Your task to perform on an android device: Open Google Chrome Image 0: 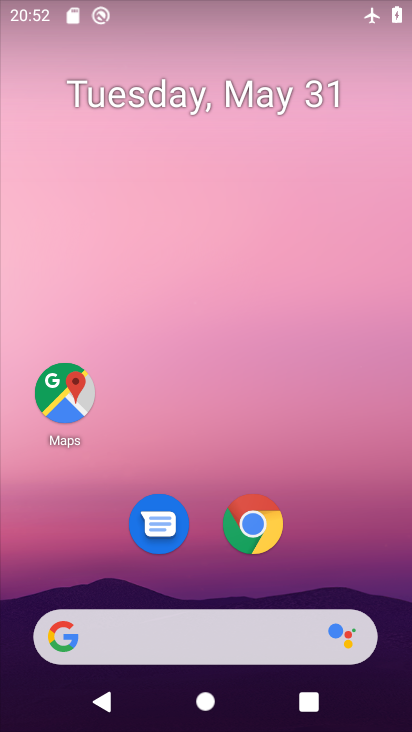
Step 0: click (257, 519)
Your task to perform on an android device: Open Google Chrome Image 1: 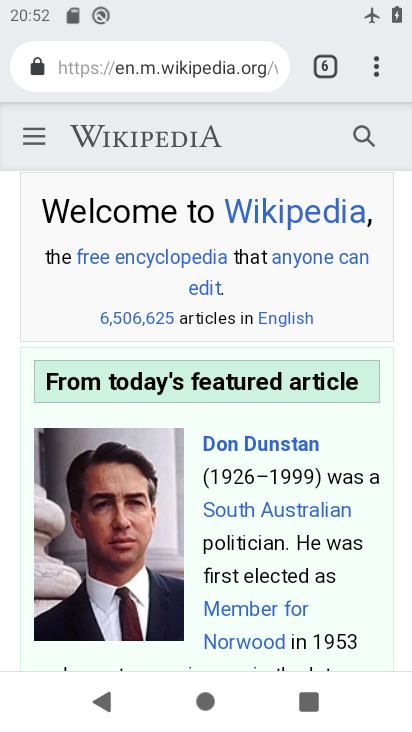
Step 1: click (375, 66)
Your task to perform on an android device: Open Google Chrome Image 2: 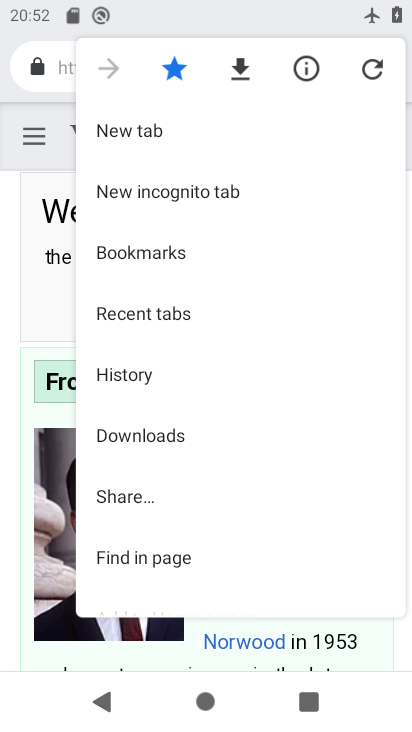
Step 2: click (284, 124)
Your task to perform on an android device: Open Google Chrome Image 3: 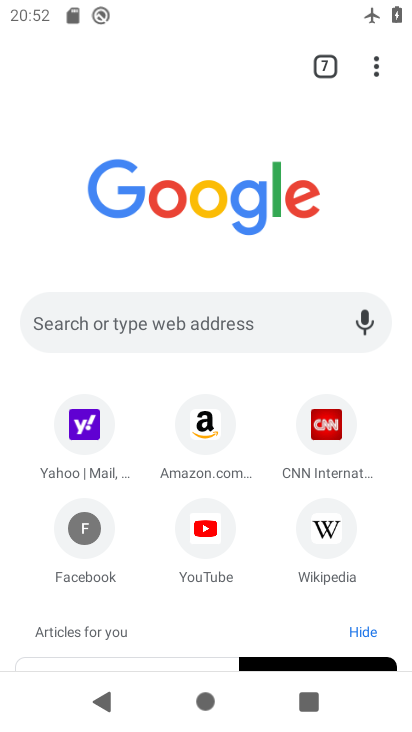
Step 3: task complete